Your task to perform on an android device: toggle priority inbox in the gmail app Image 0: 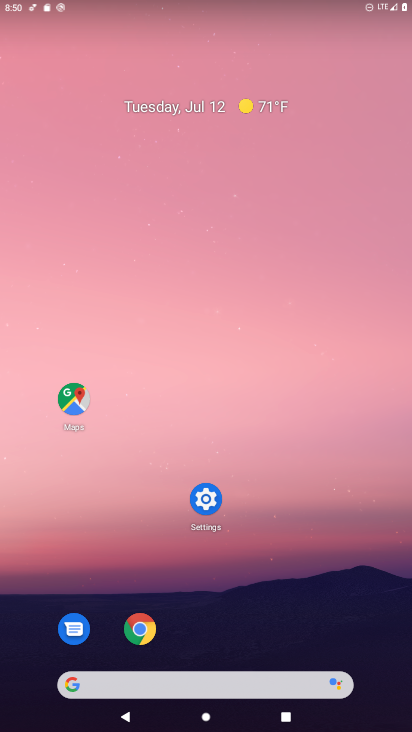
Step 0: drag from (387, 690) to (339, 156)
Your task to perform on an android device: toggle priority inbox in the gmail app Image 1: 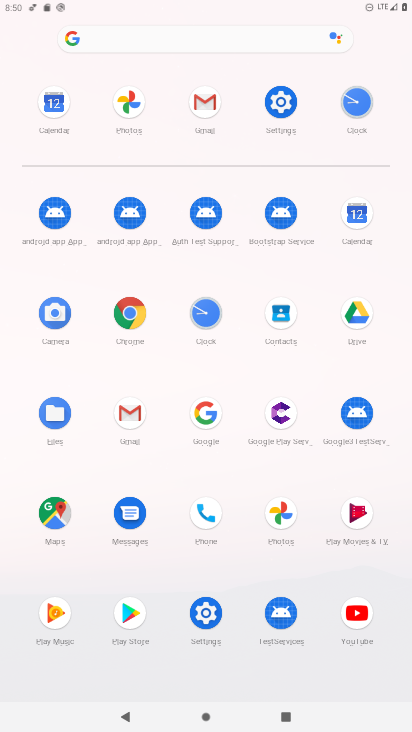
Step 1: click (137, 420)
Your task to perform on an android device: toggle priority inbox in the gmail app Image 2: 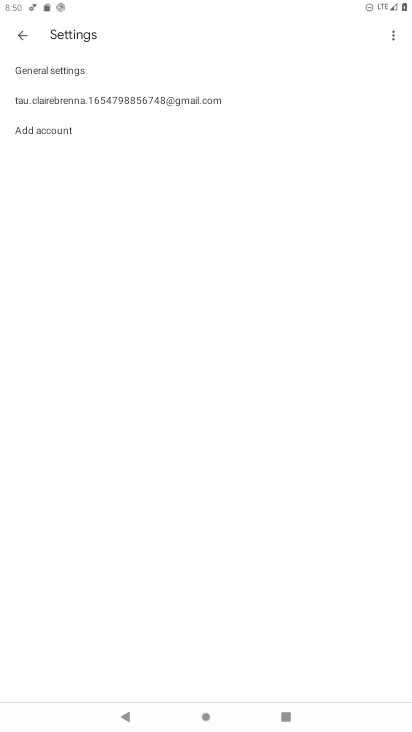
Step 2: click (96, 100)
Your task to perform on an android device: toggle priority inbox in the gmail app Image 3: 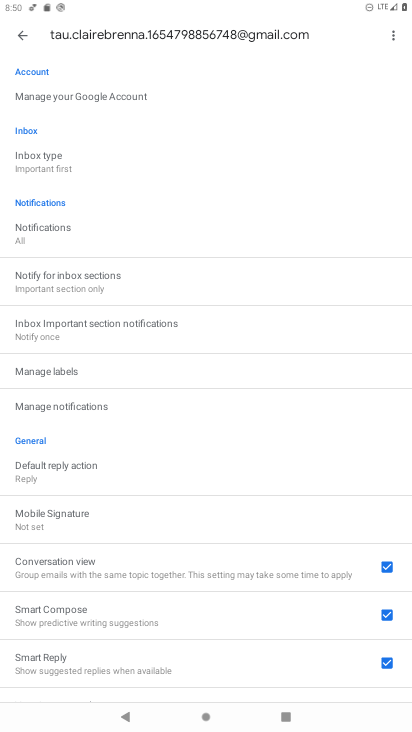
Step 3: click (40, 168)
Your task to perform on an android device: toggle priority inbox in the gmail app Image 4: 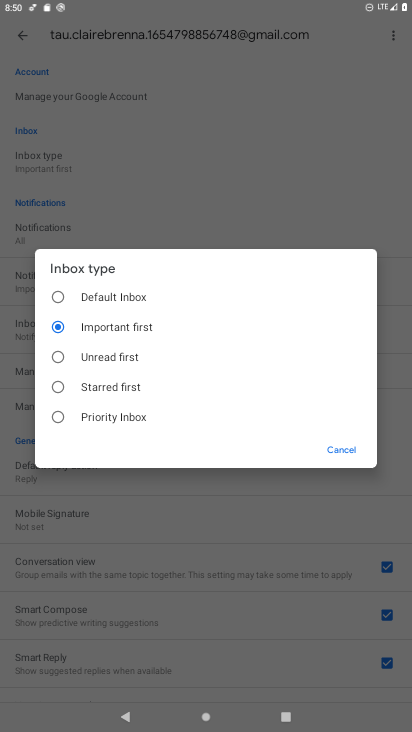
Step 4: click (55, 413)
Your task to perform on an android device: toggle priority inbox in the gmail app Image 5: 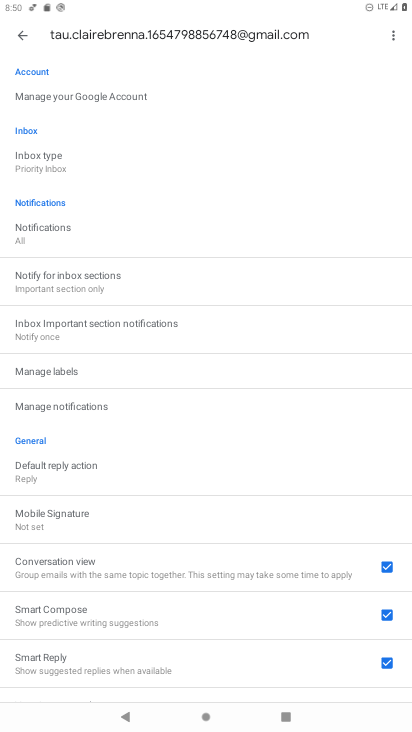
Step 5: task complete